Your task to perform on an android device: Clear the cart on newegg. Search for razer thresher on newegg, select the first entry, add it to the cart, then select checkout. Image 0: 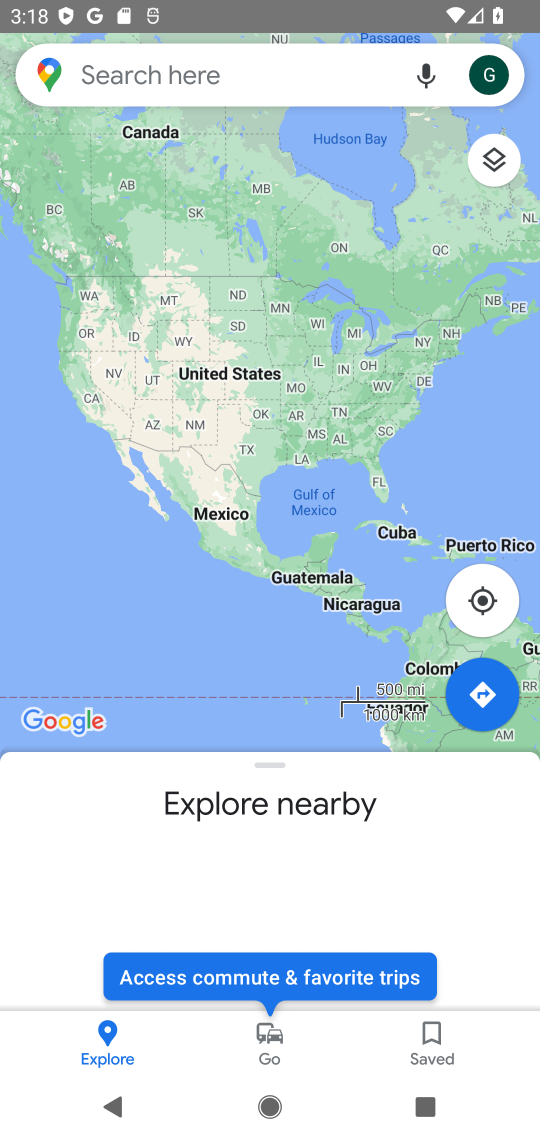
Step 0: press home button
Your task to perform on an android device: Clear the cart on newegg. Search for razer thresher on newegg, select the first entry, add it to the cart, then select checkout. Image 1: 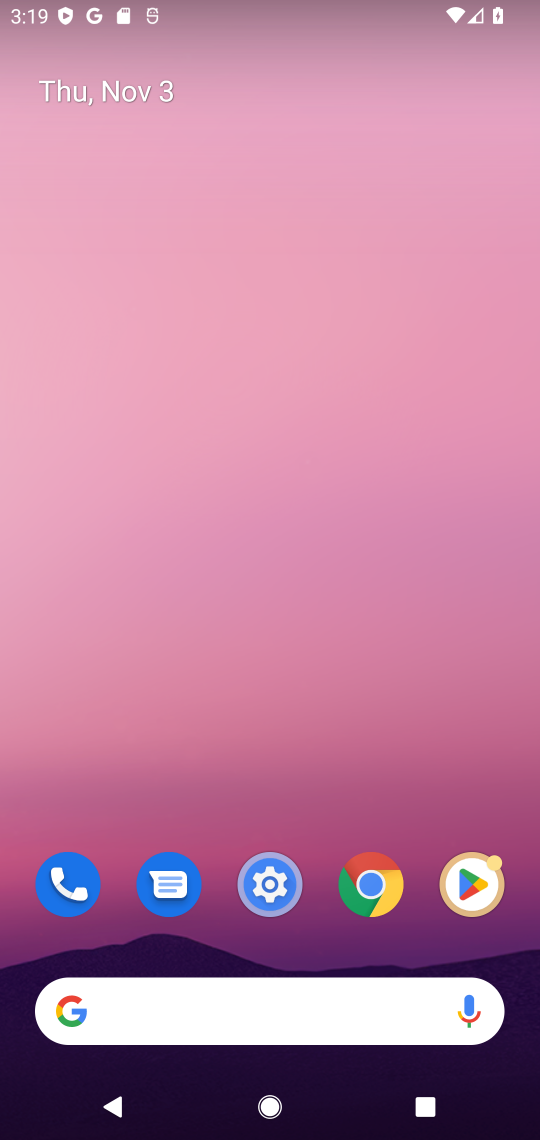
Step 1: click (103, 1002)
Your task to perform on an android device: Clear the cart on newegg. Search for razer thresher on newegg, select the first entry, add it to the cart, then select checkout. Image 2: 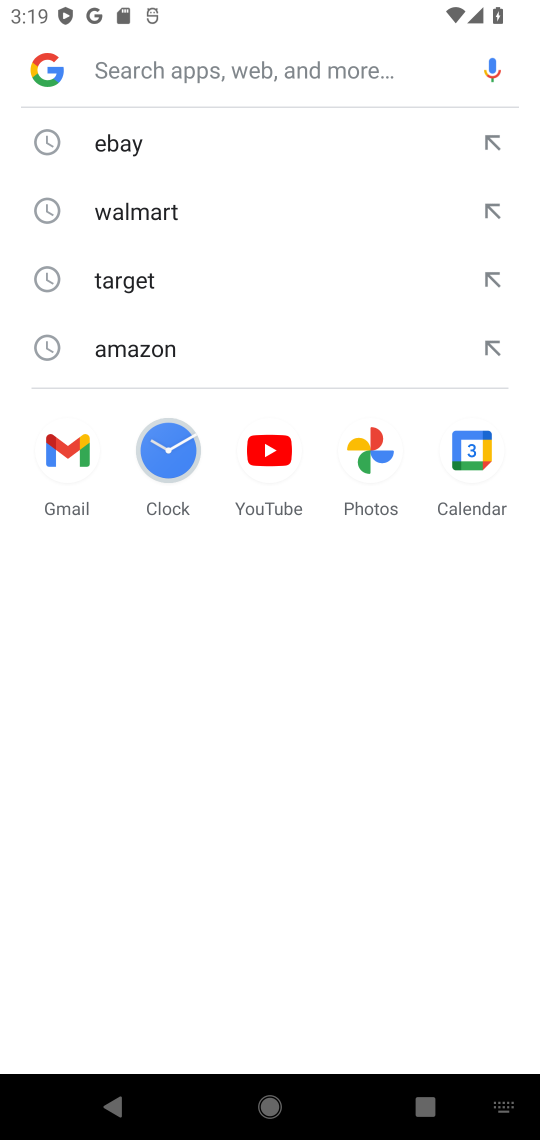
Step 2: type " newegg"
Your task to perform on an android device: Clear the cart on newegg. Search for razer thresher on newegg, select the first entry, add it to the cart, then select checkout. Image 3: 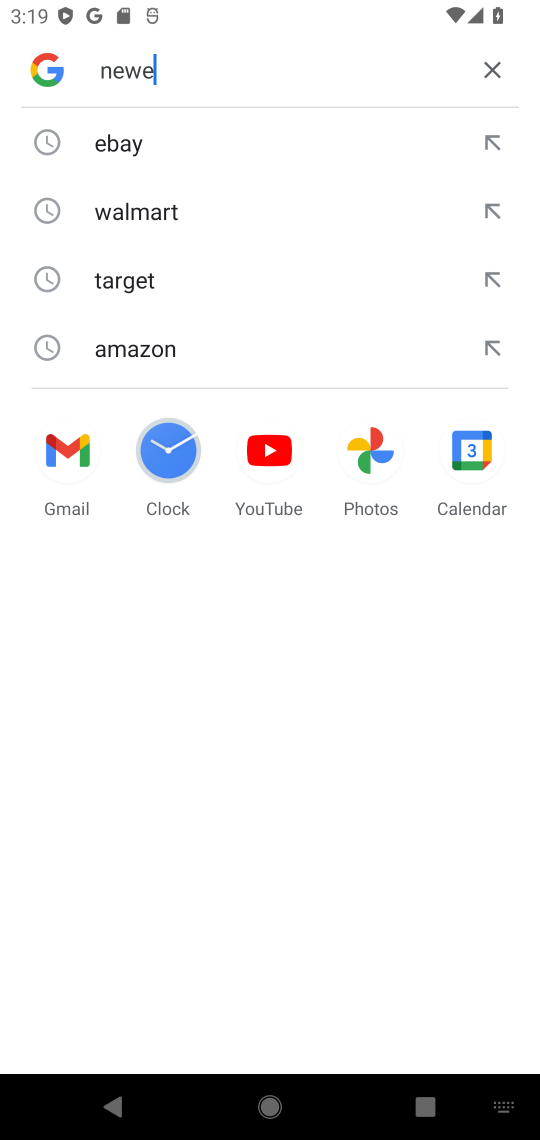
Step 3: press enter
Your task to perform on an android device: Clear the cart on newegg. Search for razer thresher on newegg, select the first entry, add it to the cart, then select checkout. Image 4: 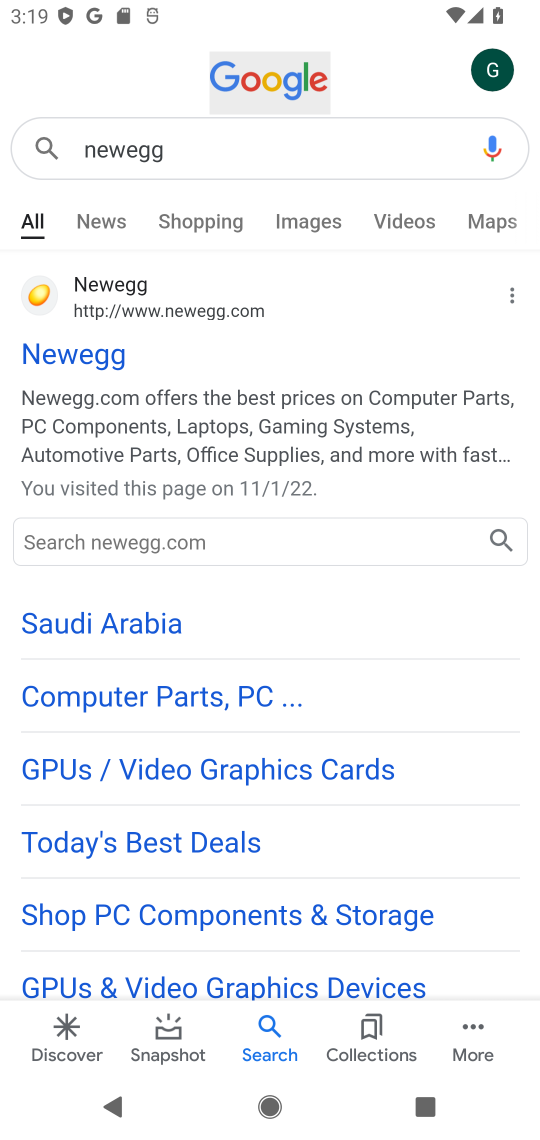
Step 4: click (90, 356)
Your task to perform on an android device: Clear the cart on newegg. Search for razer thresher on newegg, select the first entry, add it to the cart, then select checkout. Image 5: 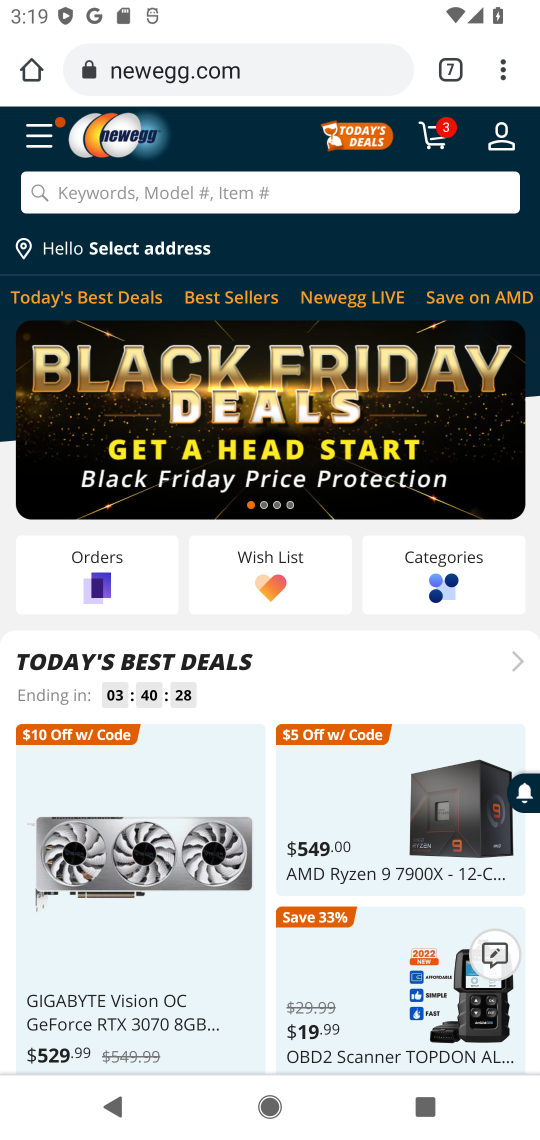
Step 5: click (435, 130)
Your task to perform on an android device: Clear the cart on newegg. Search for razer thresher on newegg, select the first entry, add it to the cart, then select checkout. Image 6: 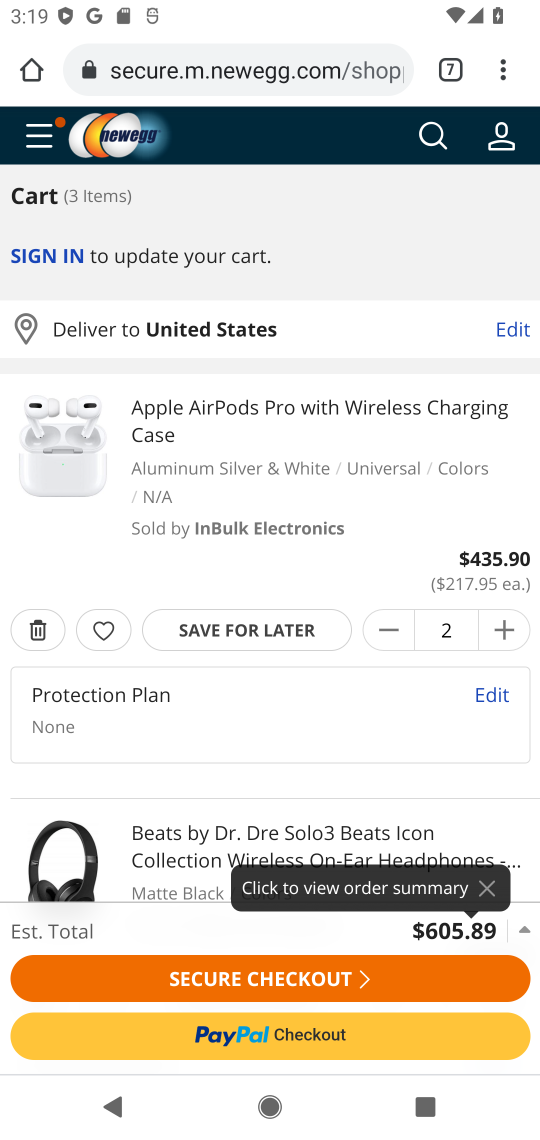
Step 6: click (34, 628)
Your task to perform on an android device: Clear the cart on newegg. Search for razer thresher on newegg, select the first entry, add it to the cart, then select checkout. Image 7: 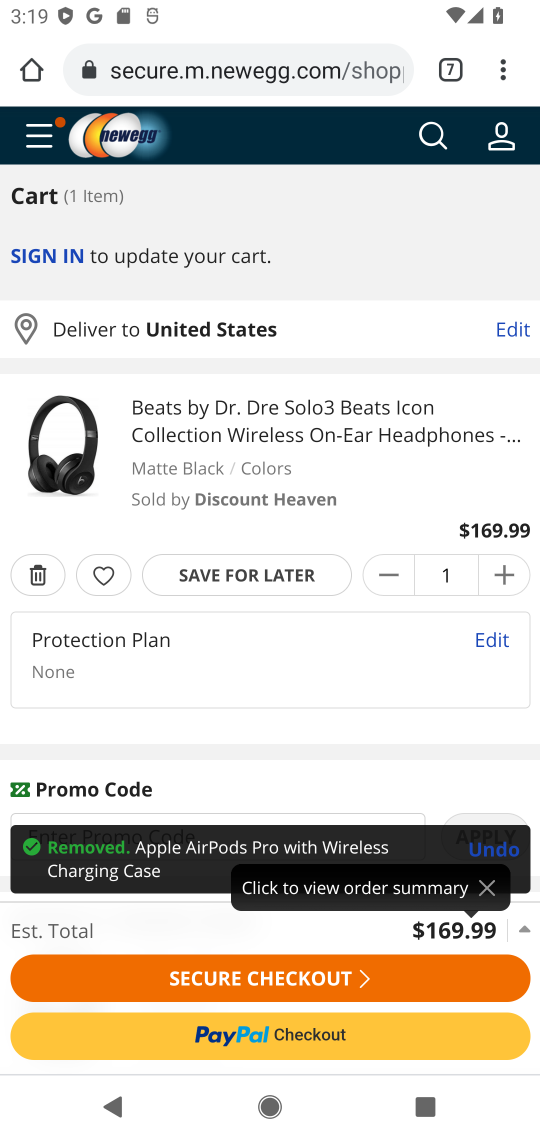
Step 7: click (35, 571)
Your task to perform on an android device: Clear the cart on newegg. Search for razer thresher on newegg, select the first entry, add it to the cart, then select checkout. Image 8: 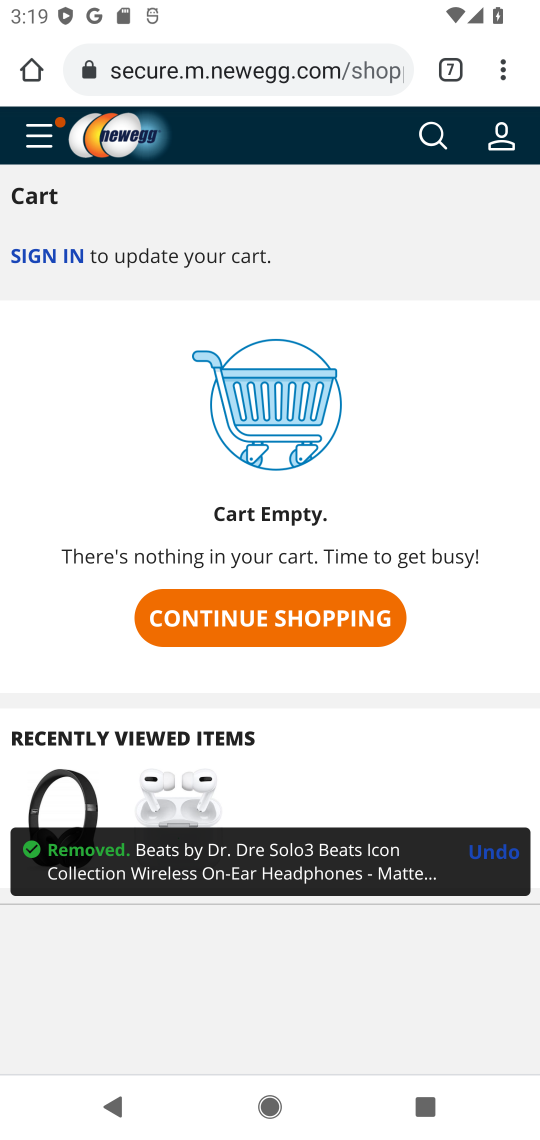
Step 8: click (429, 130)
Your task to perform on an android device: Clear the cart on newegg. Search for razer thresher on newegg, select the first entry, add it to the cart, then select checkout. Image 9: 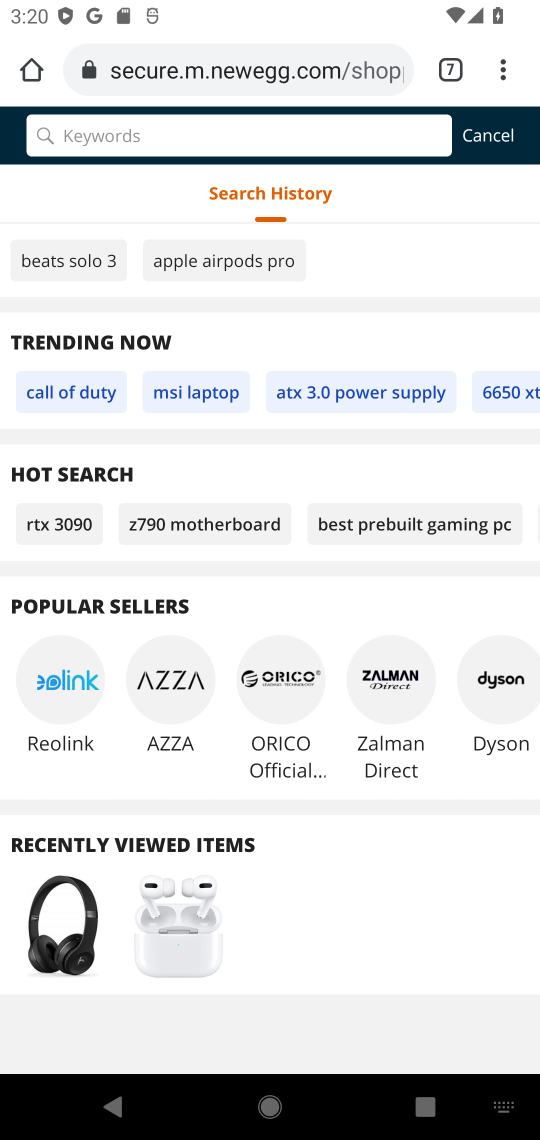
Step 9: type "razer thresher"
Your task to perform on an android device: Clear the cart on newegg. Search for razer thresher on newegg, select the first entry, add it to the cart, then select checkout. Image 10: 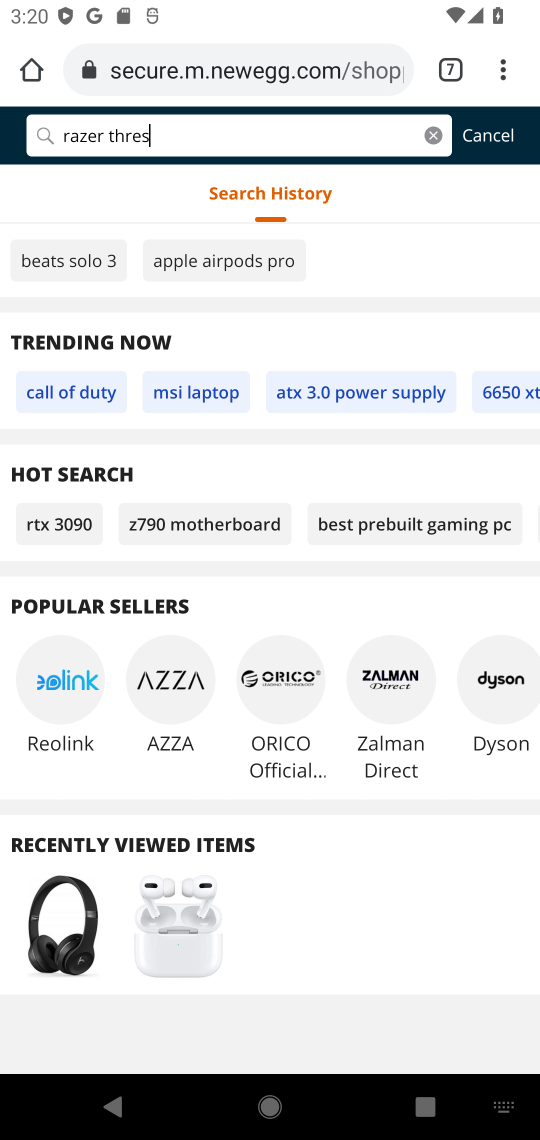
Step 10: press enter
Your task to perform on an android device: Clear the cart on newegg. Search for razer thresher on newegg, select the first entry, add it to the cart, then select checkout. Image 11: 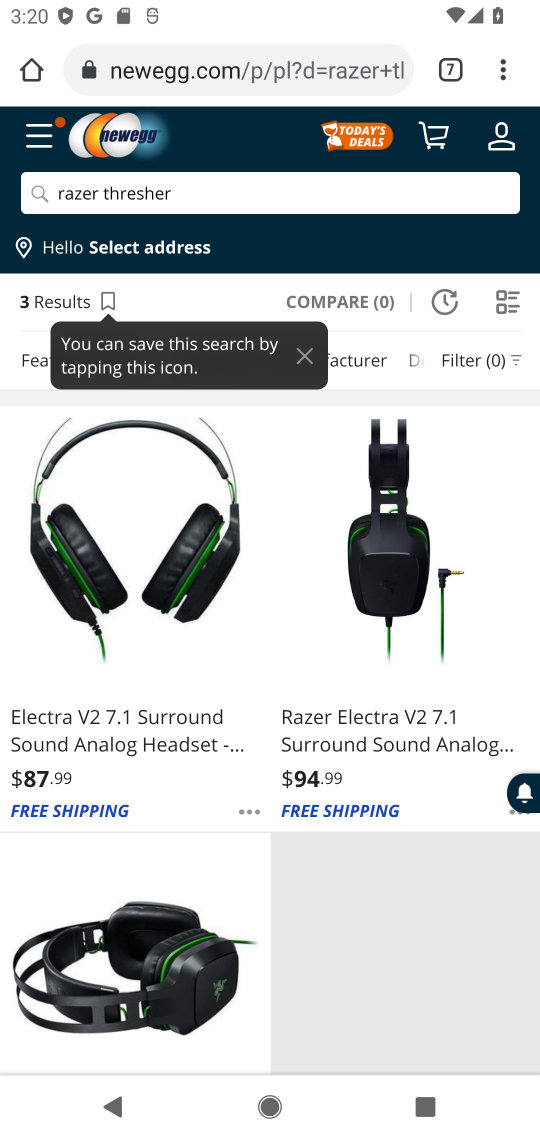
Step 11: task complete